Your task to perform on an android device: turn off data saver in the chrome app Image 0: 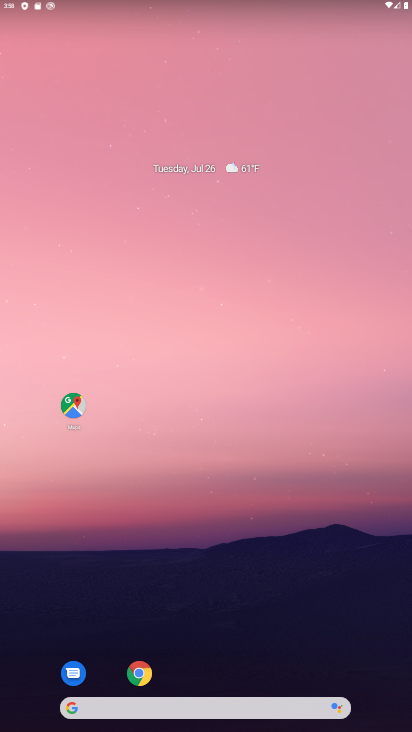
Step 0: press home button
Your task to perform on an android device: turn off data saver in the chrome app Image 1: 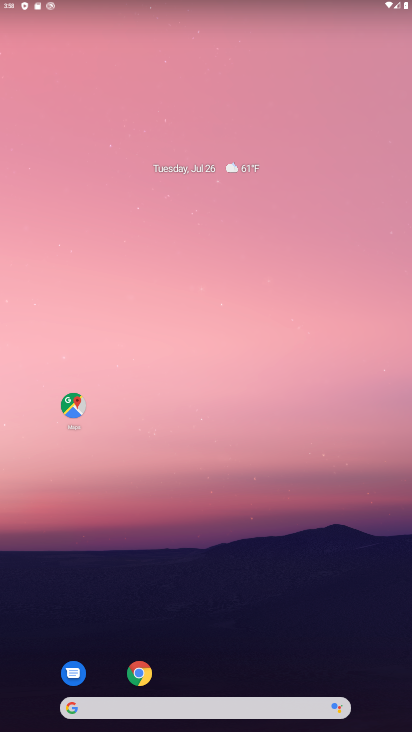
Step 1: click (138, 669)
Your task to perform on an android device: turn off data saver in the chrome app Image 2: 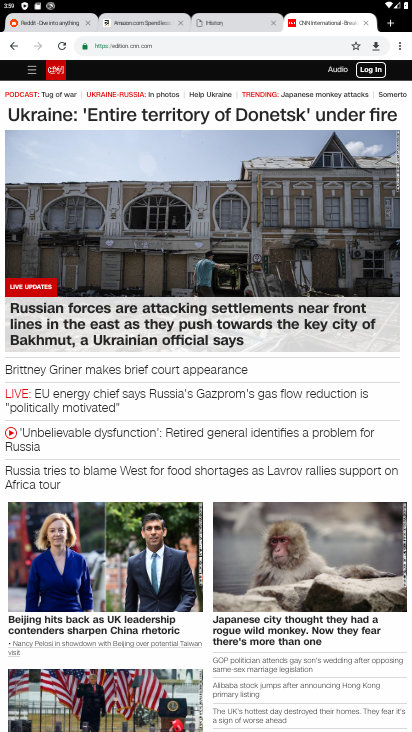
Step 2: click (397, 46)
Your task to perform on an android device: turn off data saver in the chrome app Image 3: 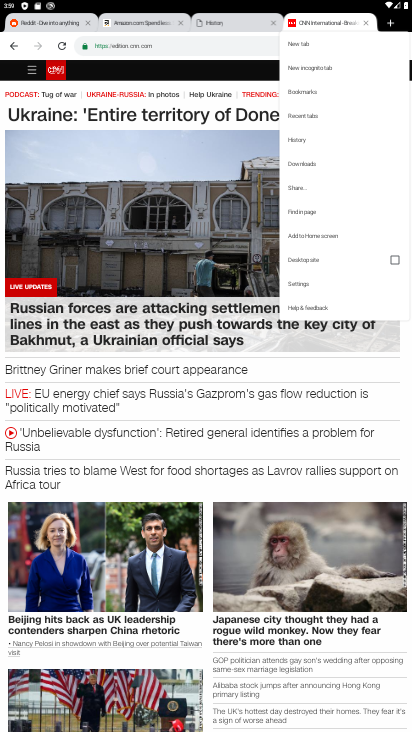
Step 3: click (308, 281)
Your task to perform on an android device: turn off data saver in the chrome app Image 4: 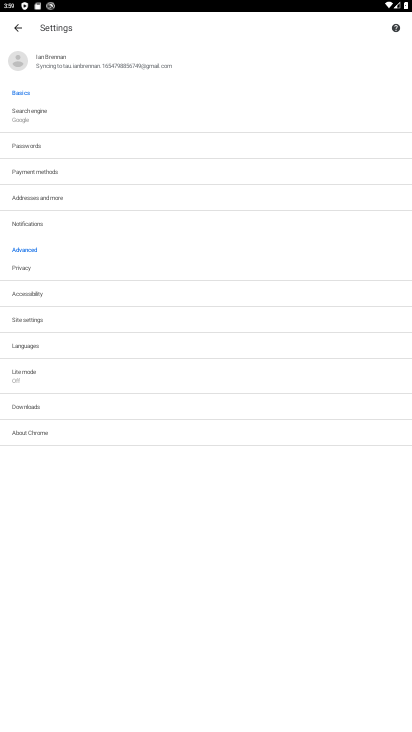
Step 4: click (45, 373)
Your task to perform on an android device: turn off data saver in the chrome app Image 5: 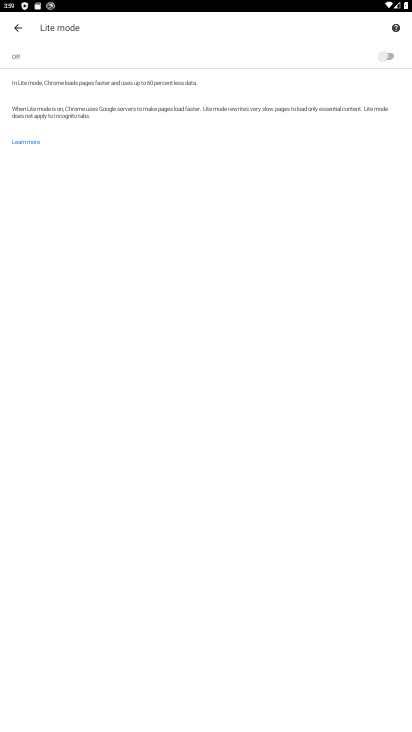
Step 5: task complete